Your task to perform on an android device: turn off notifications in google photos Image 0: 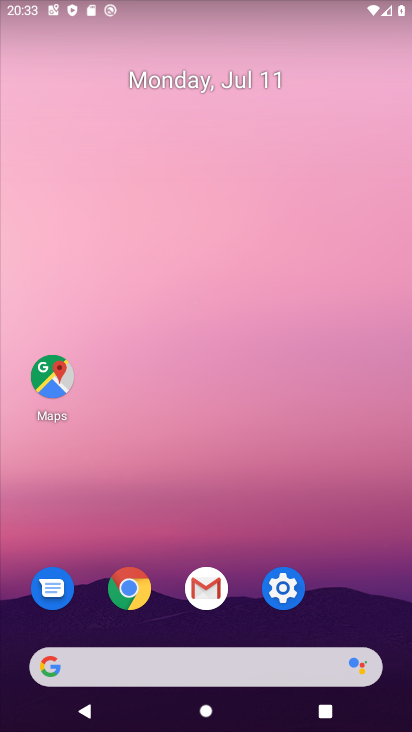
Step 0: drag from (258, 694) to (169, 89)
Your task to perform on an android device: turn off notifications in google photos Image 1: 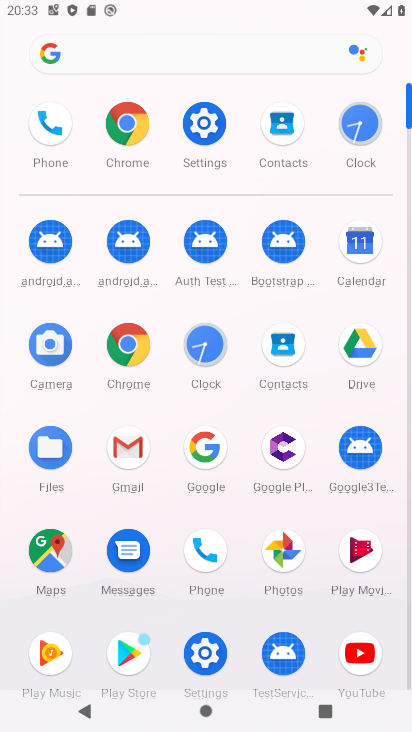
Step 1: click (270, 568)
Your task to perform on an android device: turn off notifications in google photos Image 2: 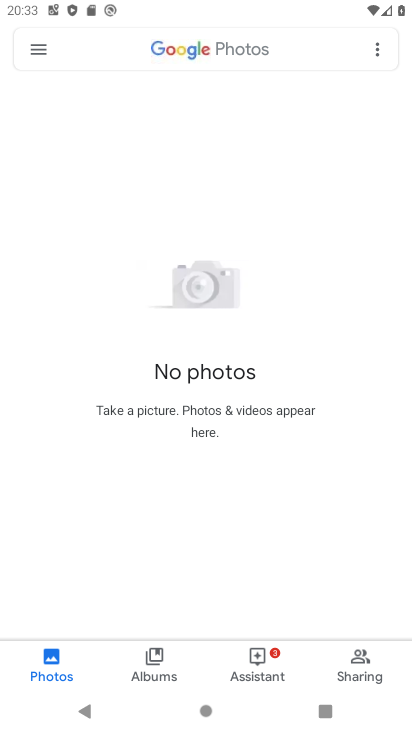
Step 2: click (37, 45)
Your task to perform on an android device: turn off notifications in google photos Image 3: 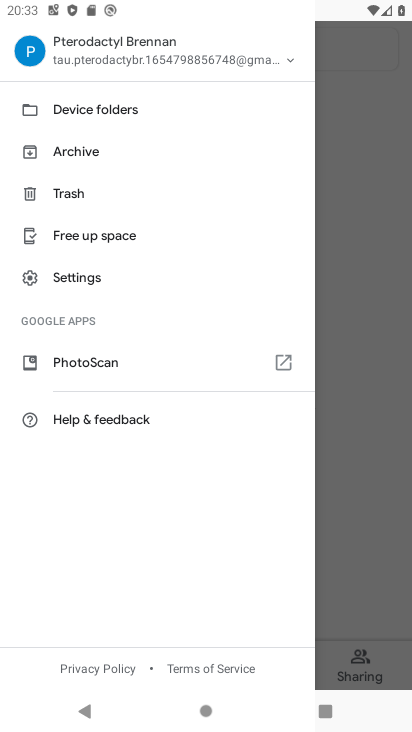
Step 3: click (87, 285)
Your task to perform on an android device: turn off notifications in google photos Image 4: 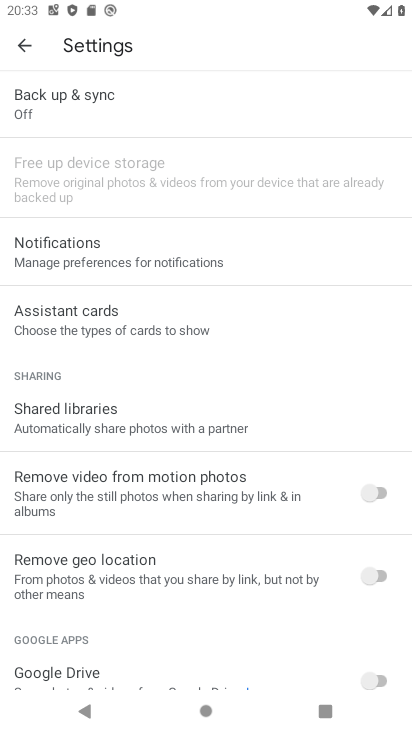
Step 4: click (86, 234)
Your task to perform on an android device: turn off notifications in google photos Image 5: 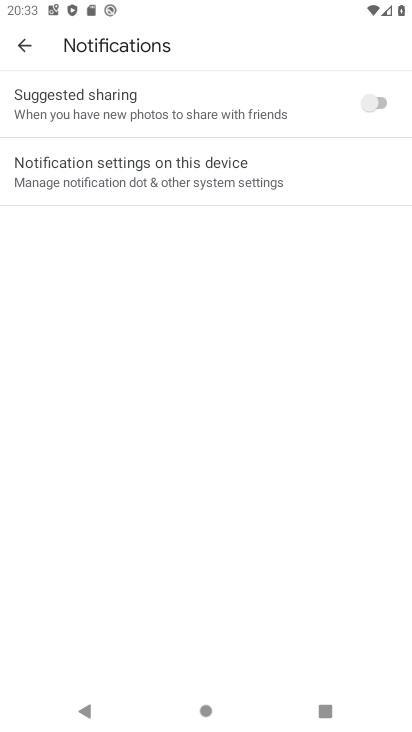
Step 5: click (102, 160)
Your task to perform on an android device: turn off notifications in google photos Image 6: 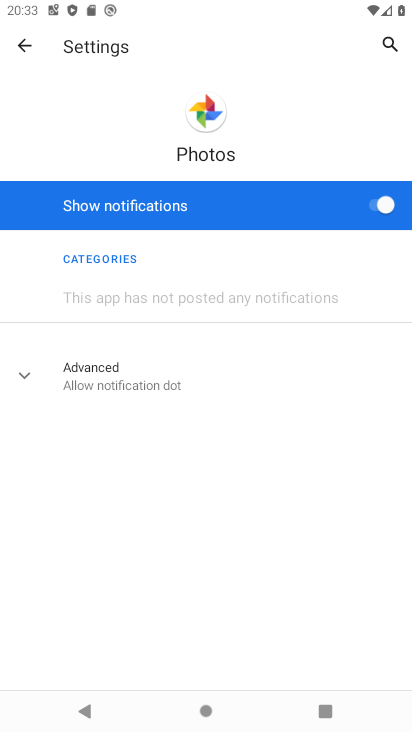
Step 6: click (371, 214)
Your task to perform on an android device: turn off notifications in google photos Image 7: 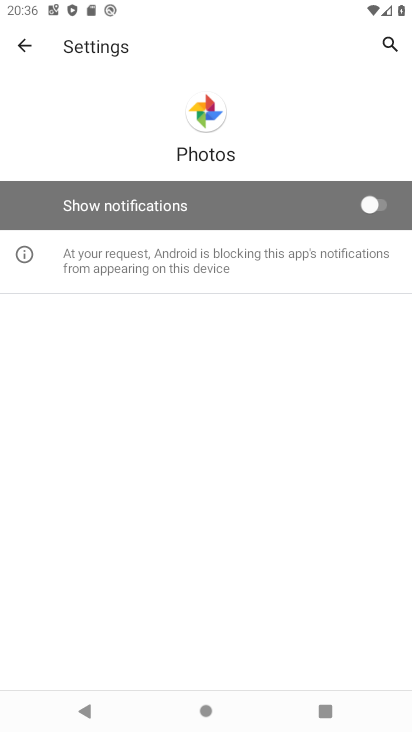
Step 7: task complete